Your task to perform on an android device: Show the shopping cart on costco. Add "usb-a to usb-b" to the cart on costco Image 0: 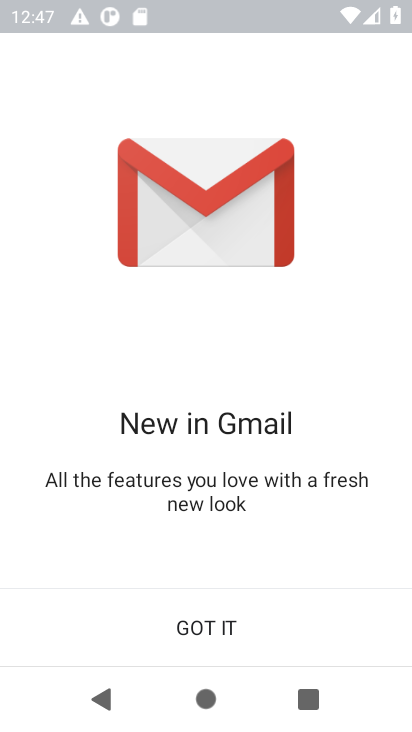
Step 0: press home button
Your task to perform on an android device: Show the shopping cart on costco. Add "usb-a to usb-b" to the cart on costco Image 1: 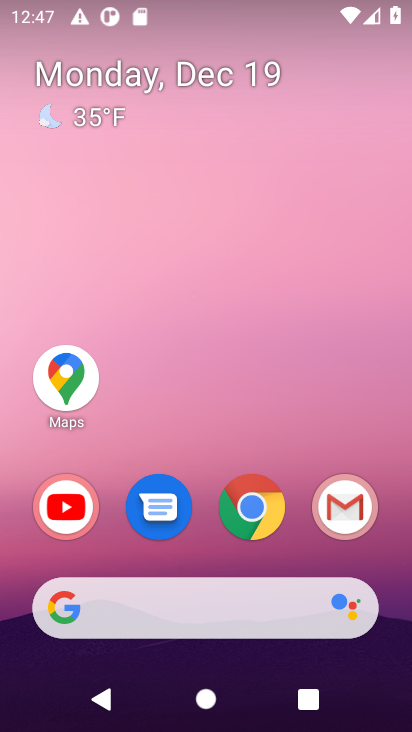
Step 1: click (256, 511)
Your task to perform on an android device: Show the shopping cart on costco. Add "usb-a to usb-b" to the cart on costco Image 2: 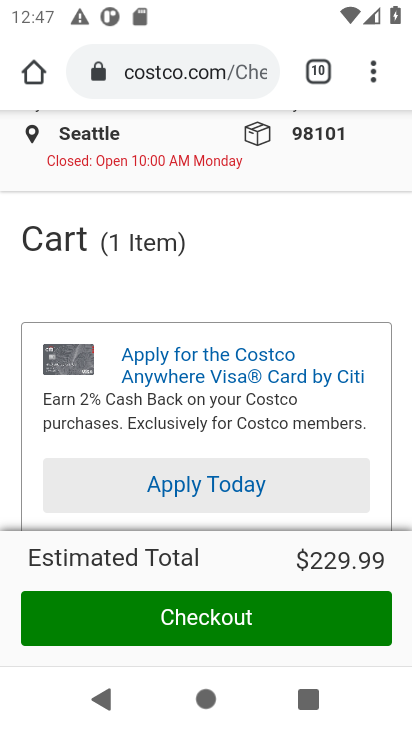
Step 2: drag from (215, 266) to (195, 566)
Your task to perform on an android device: Show the shopping cart on costco. Add "usb-a to usb-b" to the cart on costco Image 3: 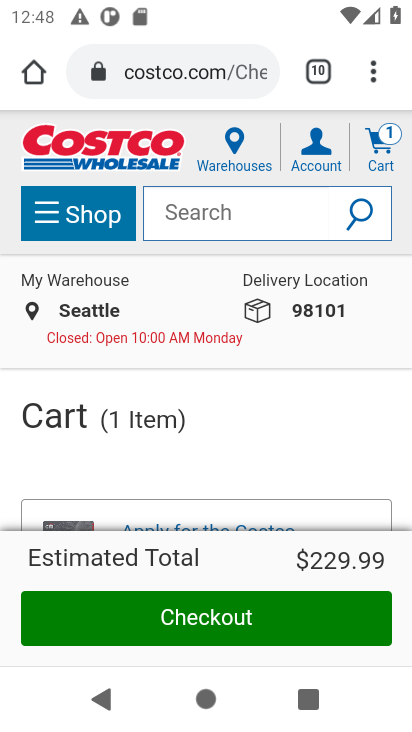
Step 3: click (193, 218)
Your task to perform on an android device: Show the shopping cart on costco. Add "usb-a to usb-b" to the cart on costco Image 4: 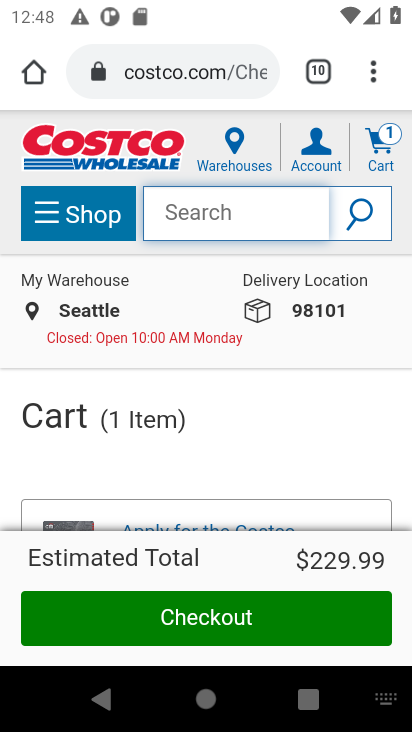
Step 4: type "usb-a to usb-b"
Your task to perform on an android device: Show the shopping cart on costco. Add "usb-a to usb-b" to the cart on costco Image 5: 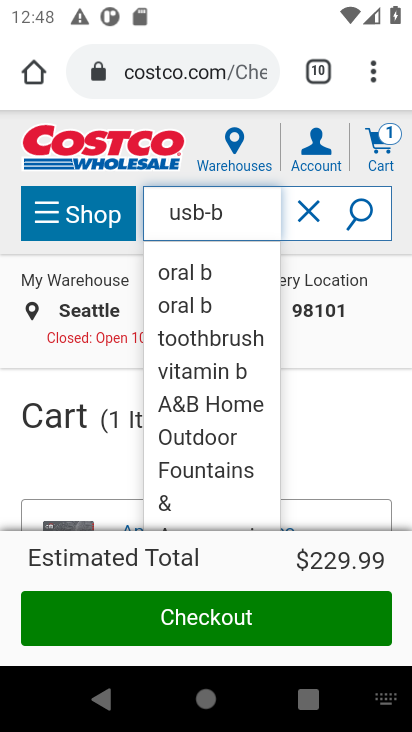
Step 5: click (361, 218)
Your task to perform on an android device: Show the shopping cart on costco. Add "usb-a to usb-b" to the cart on costco Image 6: 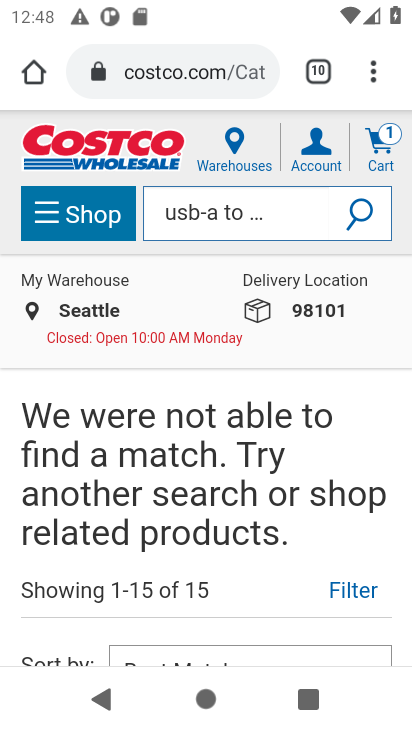
Step 6: task complete